Your task to perform on an android device: Go to calendar. Show me events next week Image 0: 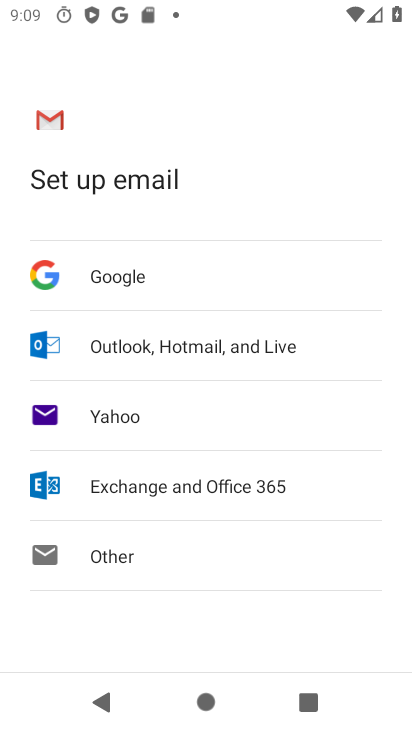
Step 0: press home button
Your task to perform on an android device: Go to calendar. Show me events next week Image 1: 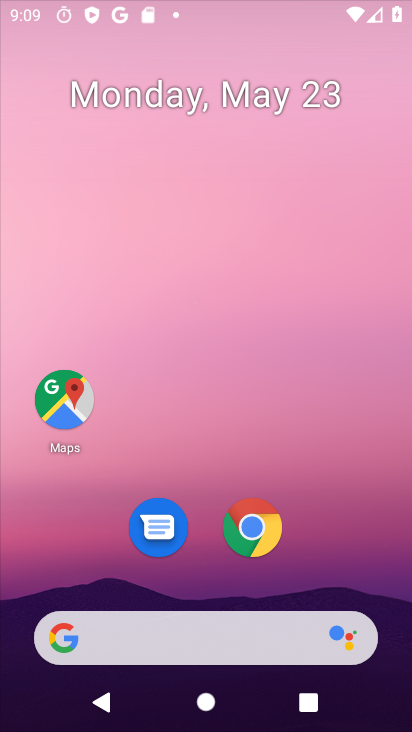
Step 1: drag from (392, 563) to (389, 59)
Your task to perform on an android device: Go to calendar. Show me events next week Image 2: 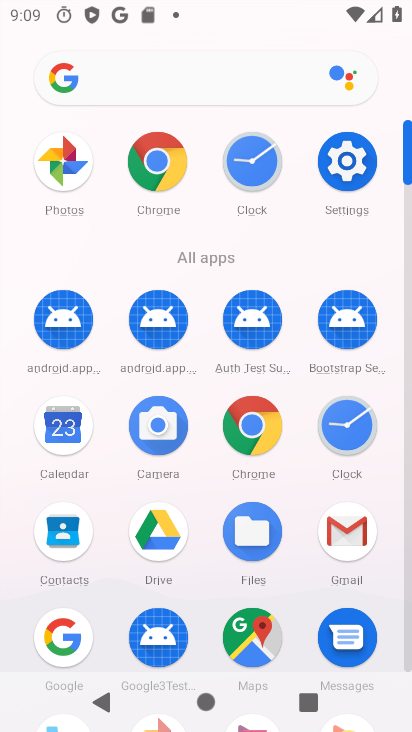
Step 2: click (58, 426)
Your task to perform on an android device: Go to calendar. Show me events next week Image 3: 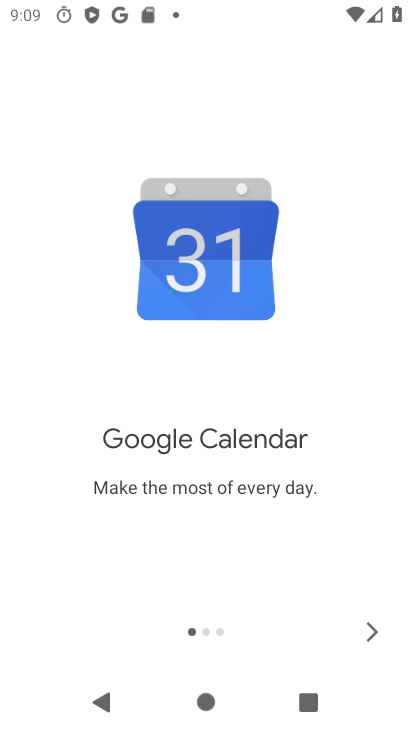
Step 3: click (376, 630)
Your task to perform on an android device: Go to calendar. Show me events next week Image 4: 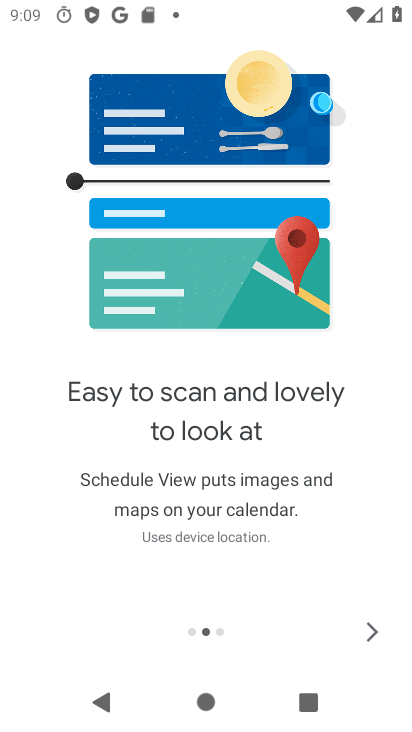
Step 4: click (376, 630)
Your task to perform on an android device: Go to calendar. Show me events next week Image 5: 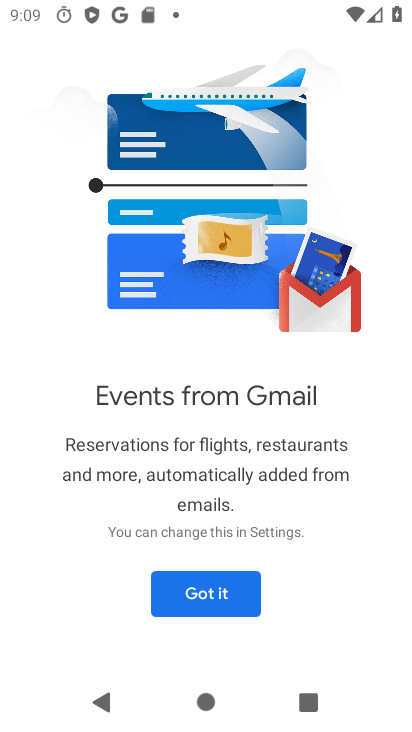
Step 5: click (162, 590)
Your task to perform on an android device: Go to calendar. Show me events next week Image 6: 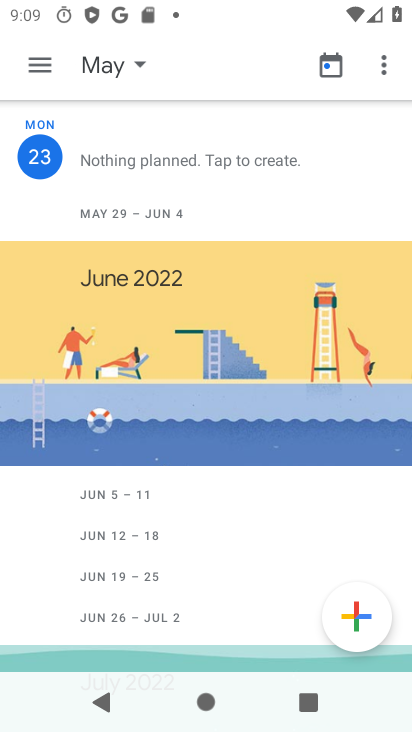
Step 6: click (104, 72)
Your task to perform on an android device: Go to calendar. Show me events next week Image 7: 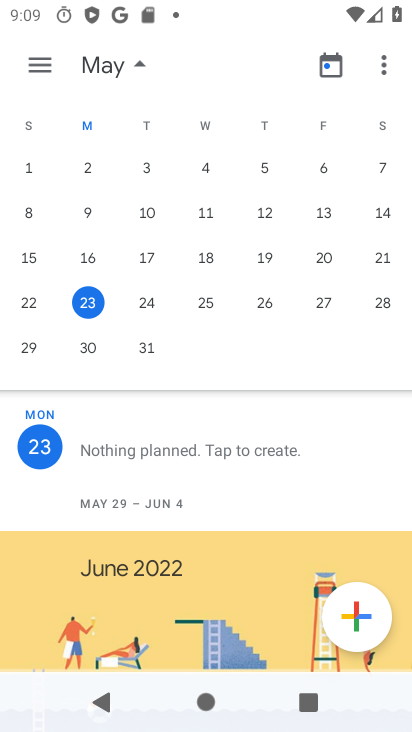
Step 7: click (26, 342)
Your task to perform on an android device: Go to calendar. Show me events next week Image 8: 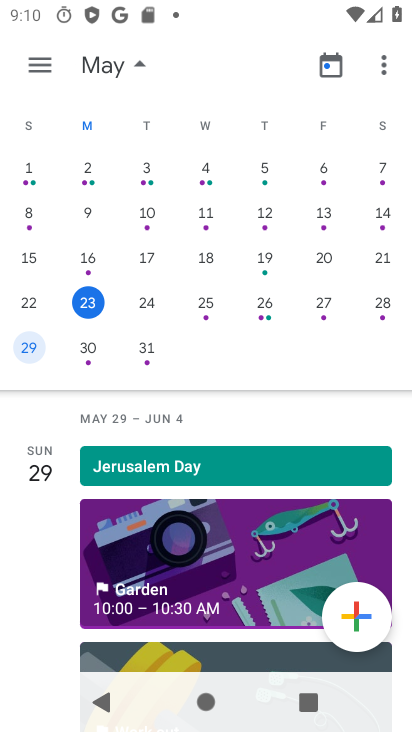
Step 8: task complete